Your task to perform on an android device: Go to accessibility settings Image 0: 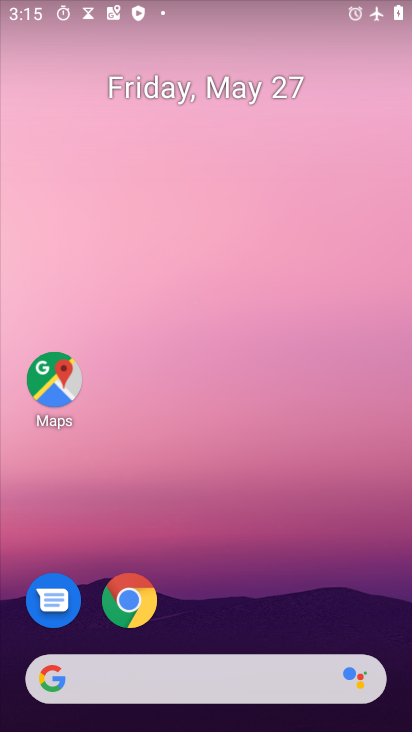
Step 0: drag from (296, 556) to (192, 0)
Your task to perform on an android device: Go to accessibility settings Image 1: 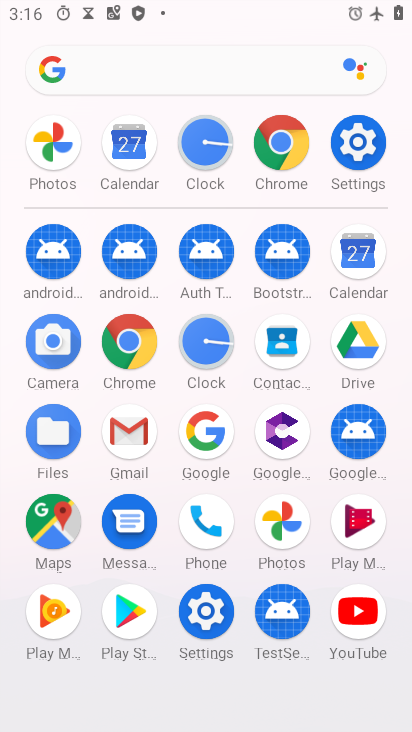
Step 1: click (207, 607)
Your task to perform on an android device: Go to accessibility settings Image 2: 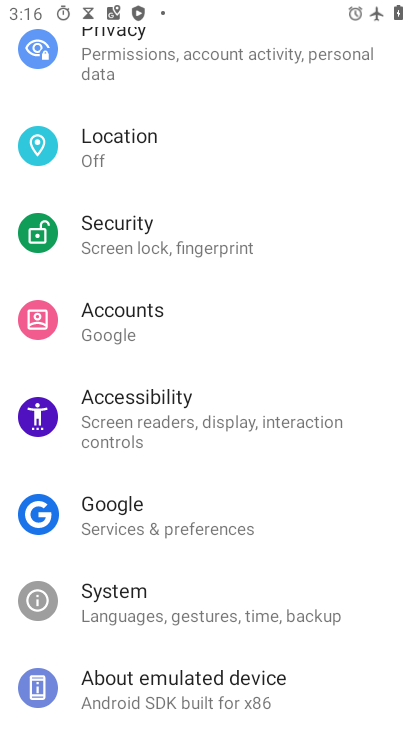
Step 2: click (141, 399)
Your task to perform on an android device: Go to accessibility settings Image 3: 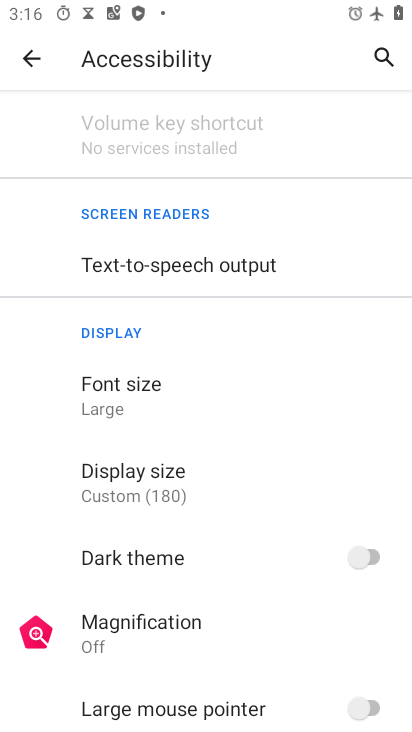
Step 3: task complete